Your task to perform on an android device: Check the news Image 0: 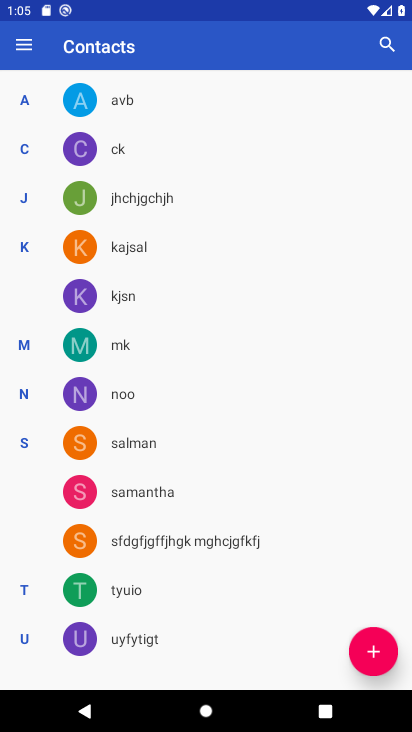
Step 0: press home button
Your task to perform on an android device: Check the news Image 1: 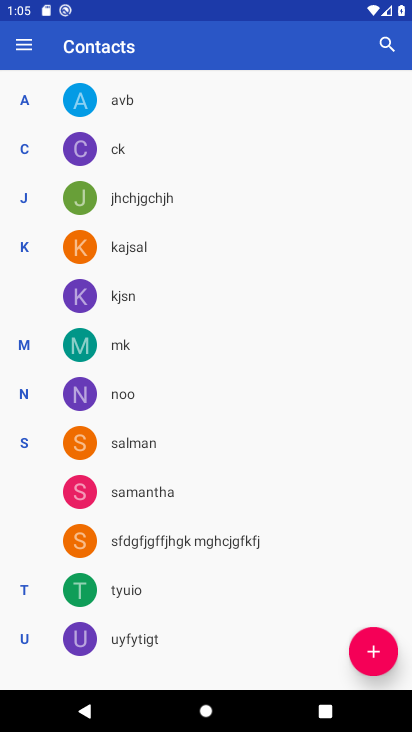
Step 1: task complete